Your task to perform on an android device: Go to display settings Image 0: 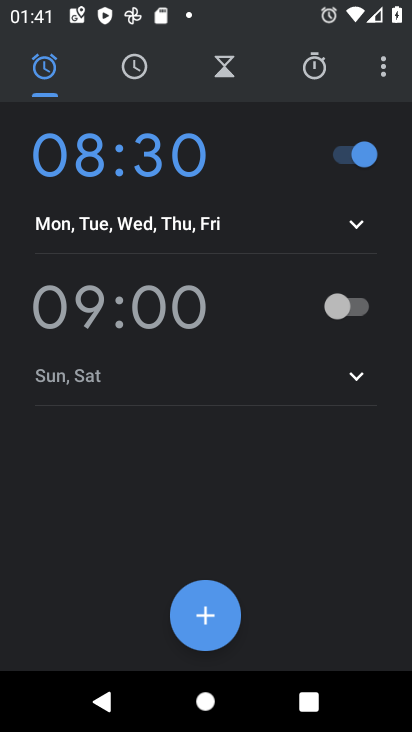
Step 0: press home button
Your task to perform on an android device: Go to display settings Image 1: 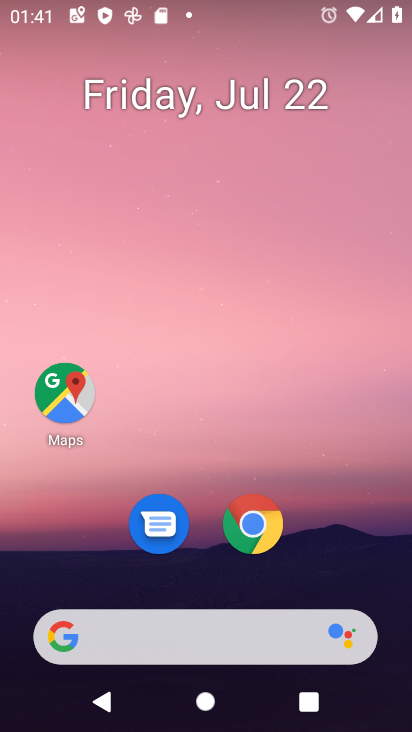
Step 1: drag from (186, 642) to (276, 207)
Your task to perform on an android device: Go to display settings Image 2: 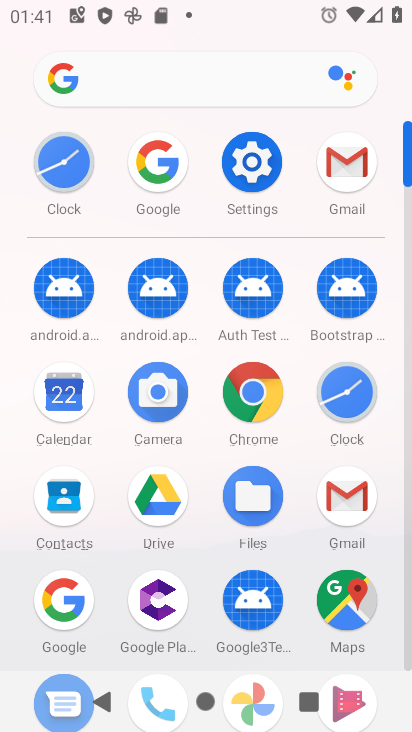
Step 2: click (245, 169)
Your task to perform on an android device: Go to display settings Image 3: 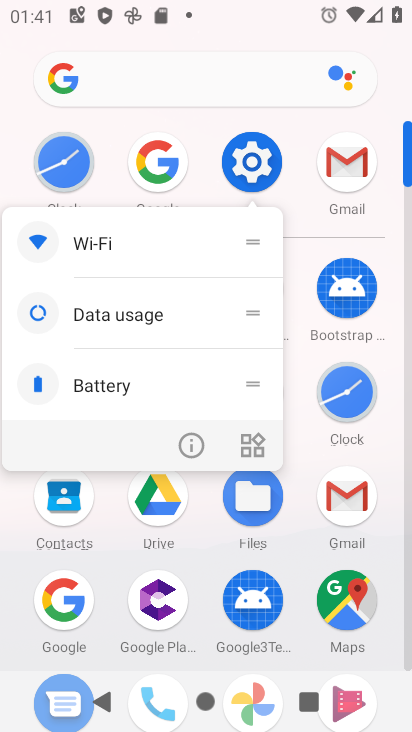
Step 3: click (255, 160)
Your task to perform on an android device: Go to display settings Image 4: 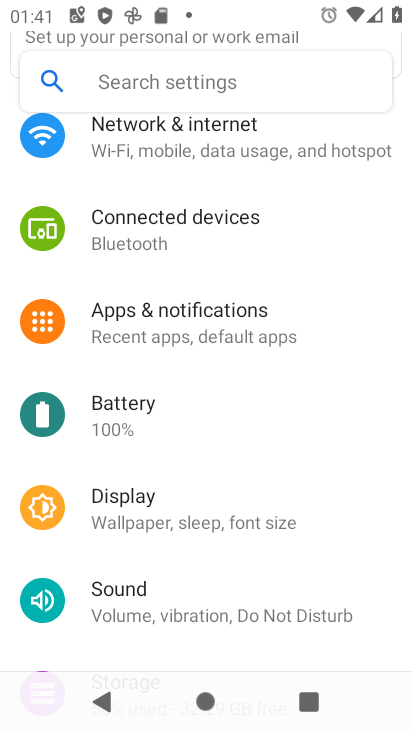
Step 4: click (150, 509)
Your task to perform on an android device: Go to display settings Image 5: 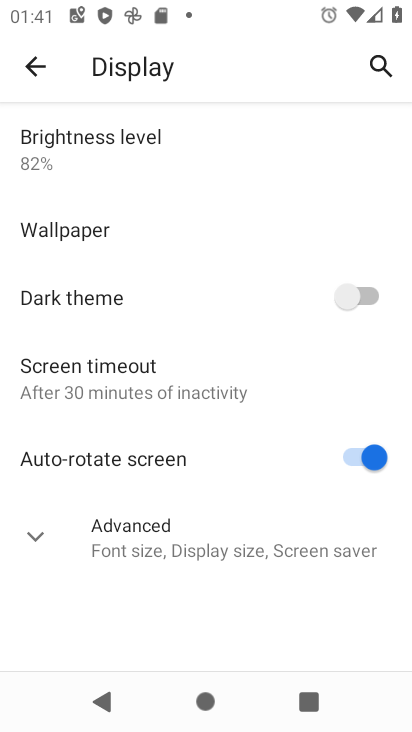
Step 5: task complete